Your task to perform on an android device: Go to battery settings Image 0: 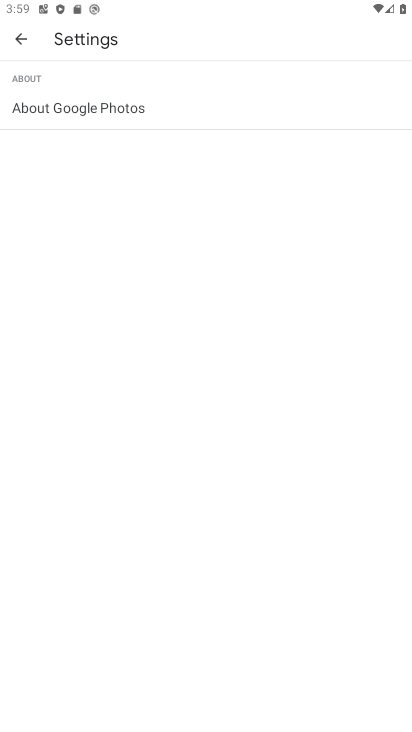
Step 0: press back button
Your task to perform on an android device: Go to battery settings Image 1: 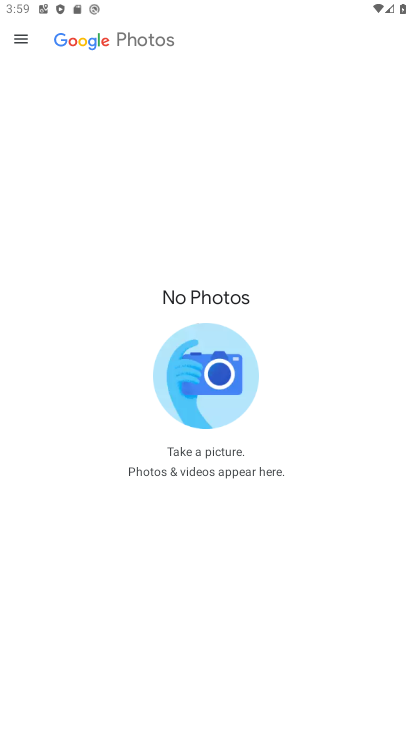
Step 1: press back button
Your task to perform on an android device: Go to battery settings Image 2: 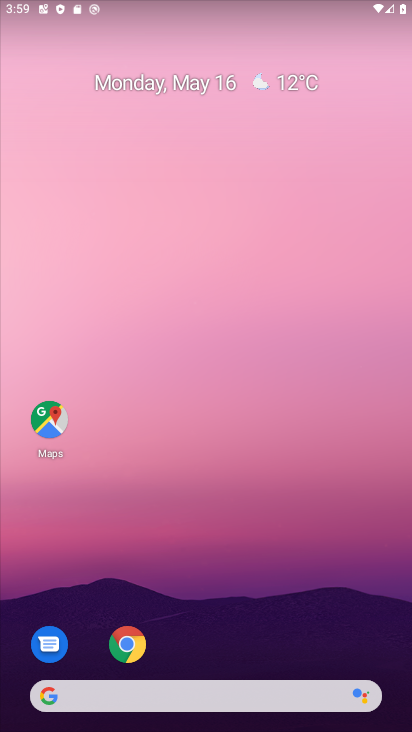
Step 2: drag from (176, 617) to (298, 62)
Your task to perform on an android device: Go to battery settings Image 3: 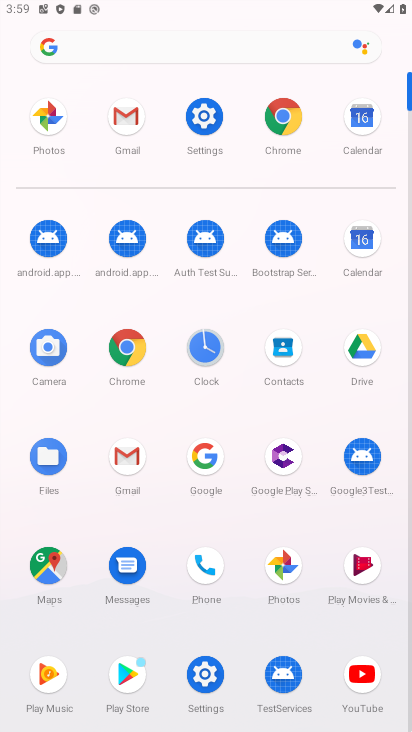
Step 3: click (198, 113)
Your task to perform on an android device: Go to battery settings Image 4: 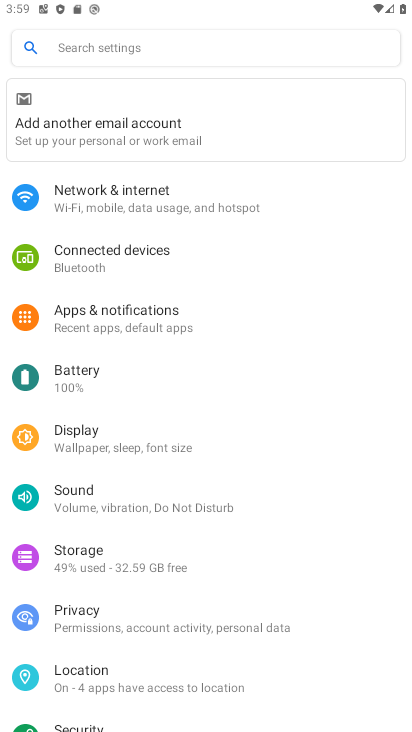
Step 4: click (106, 383)
Your task to perform on an android device: Go to battery settings Image 5: 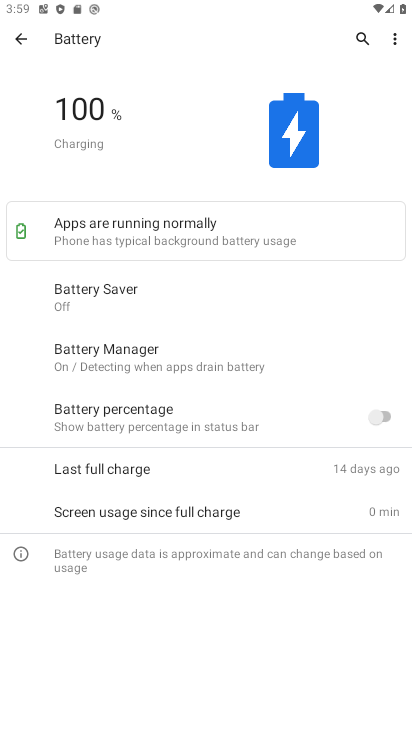
Step 5: task complete